Your task to perform on an android device: move a message to another label in the gmail app Image 0: 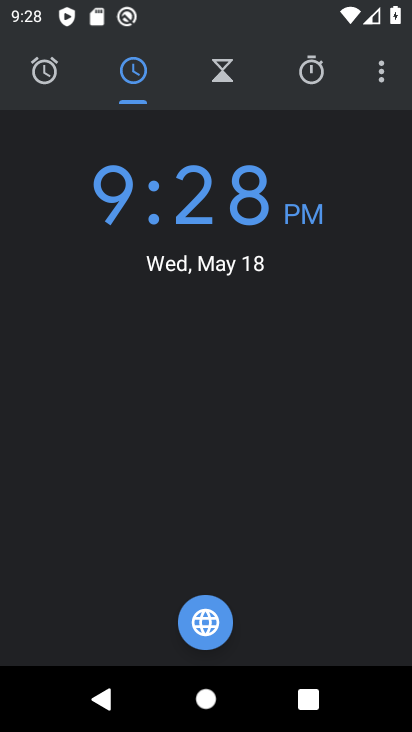
Step 0: press home button
Your task to perform on an android device: move a message to another label in the gmail app Image 1: 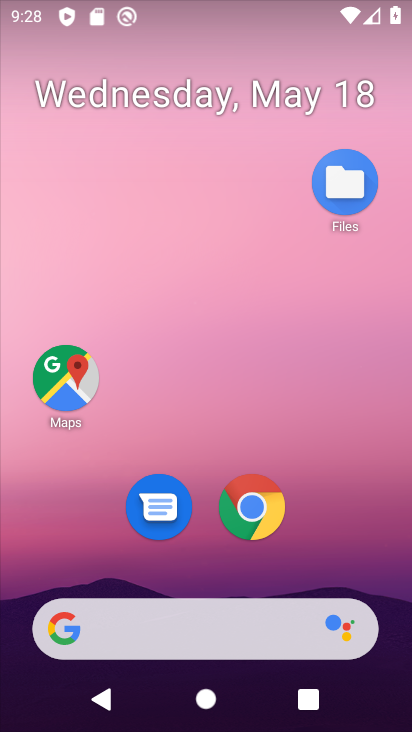
Step 1: drag from (389, 503) to (309, 136)
Your task to perform on an android device: move a message to another label in the gmail app Image 2: 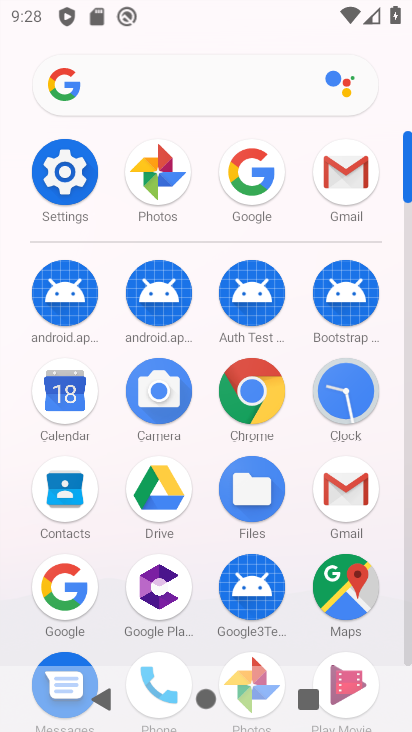
Step 2: click (324, 171)
Your task to perform on an android device: move a message to another label in the gmail app Image 3: 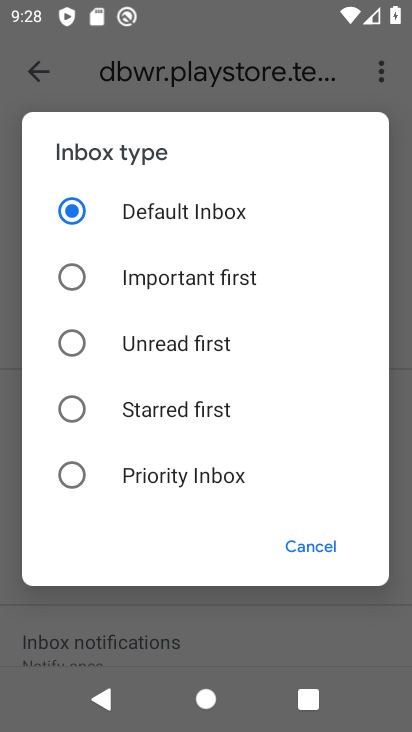
Step 3: click (310, 554)
Your task to perform on an android device: move a message to another label in the gmail app Image 4: 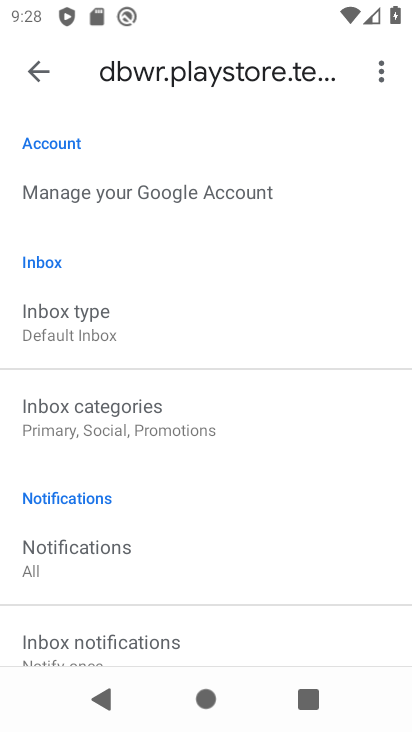
Step 4: click (30, 74)
Your task to perform on an android device: move a message to another label in the gmail app Image 5: 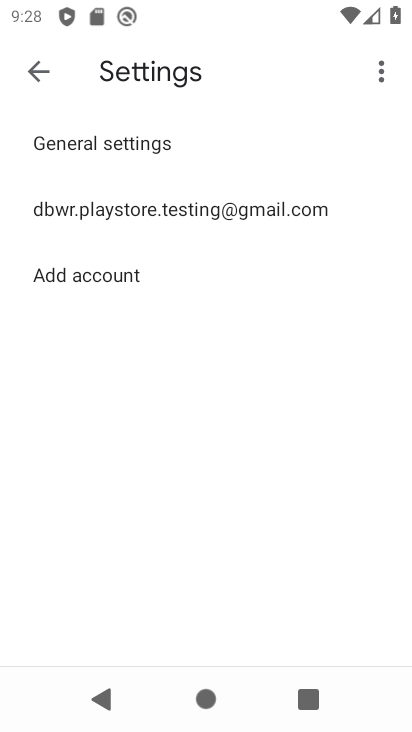
Step 5: click (31, 74)
Your task to perform on an android device: move a message to another label in the gmail app Image 6: 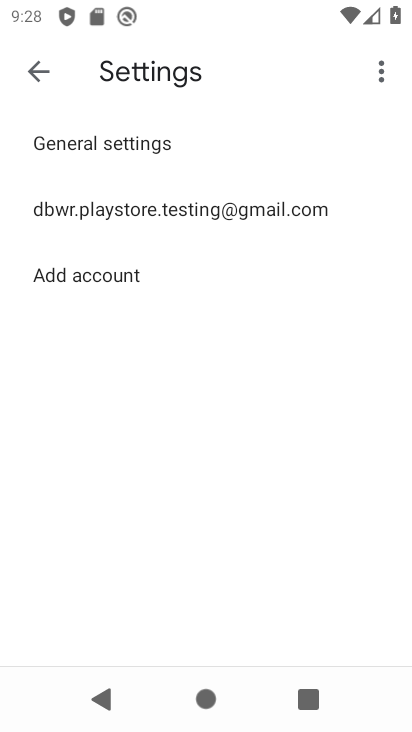
Step 6: click (31, 74)
Your task to perform on an android device: move a message to another label in the gmail app Image 7: 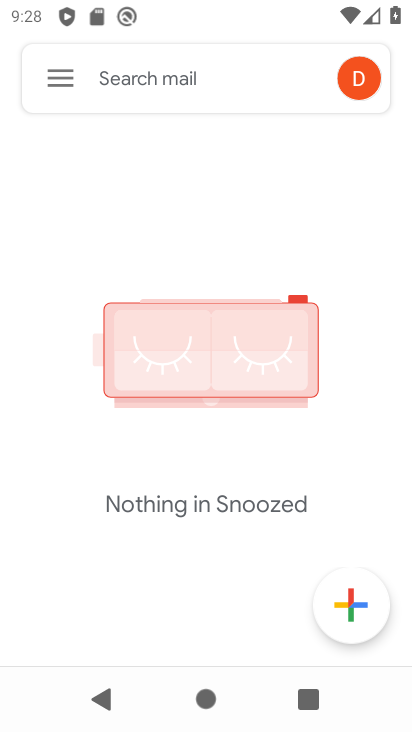
Step 7: click (40, 70)
Your task to perform on an android device: move a message to another label in the gmail app Image 8: 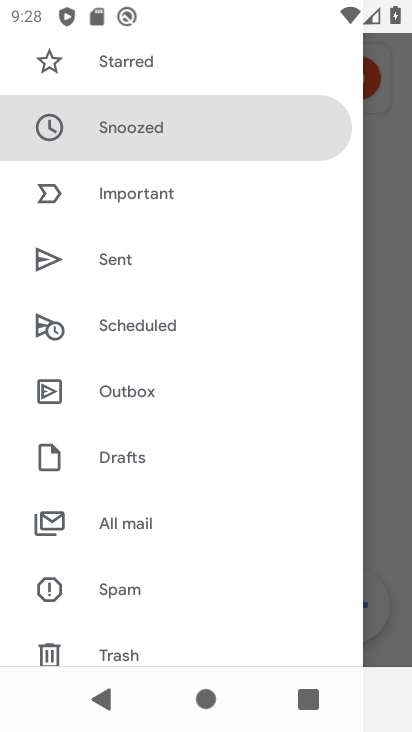
Step 8: click (131, 508)
Your task to perform on an android device: move a message to another label in the gmail app Image 9: 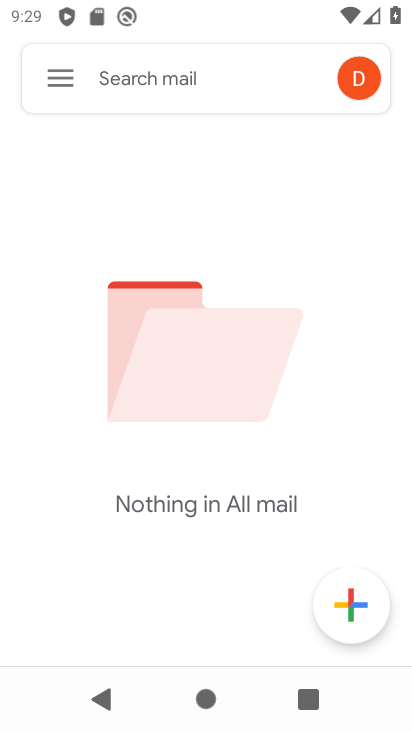
Step 9: task complete